Your task to perform on an android device: turn off smart reply in the gmail app Image 0: 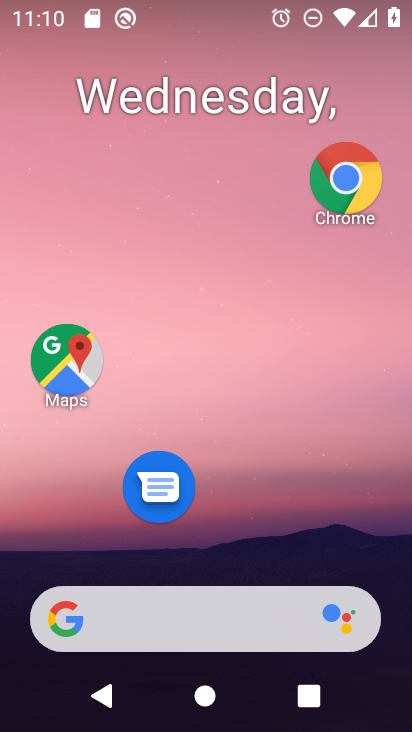
Step 0: drag from (243, 552) to (334, 133)
Your task to perform on an android device: turn off smart reply in the gmail app Image 1: 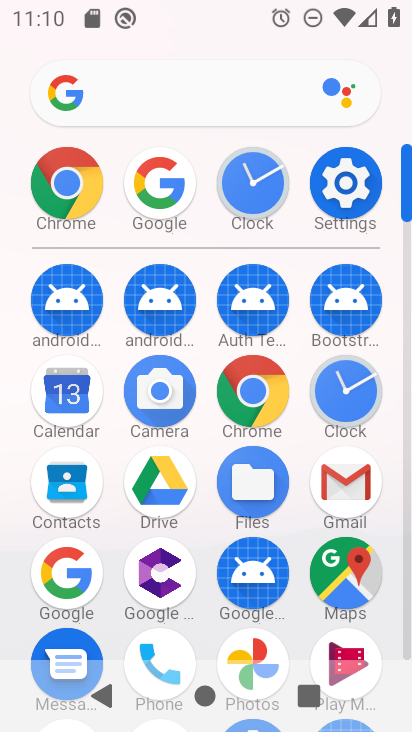
Step 1: click (345, 490)
Your task to perform on an android device: turn off smart reply in the gmail app Image 2: 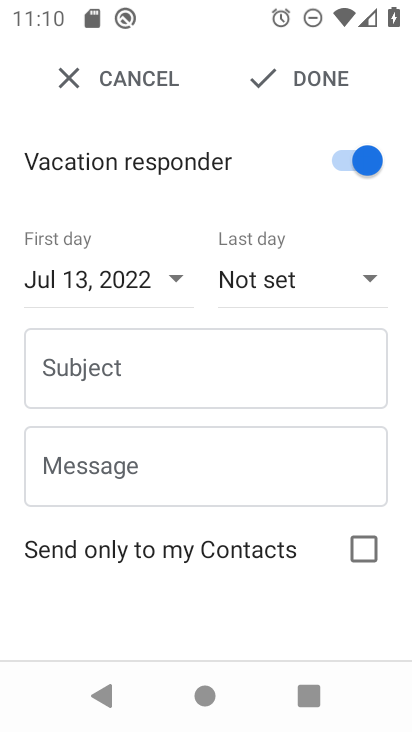
Step 2: click (82, 78)
Your task to perform on an android device: turn off smart reply in the gmail app Image 3: 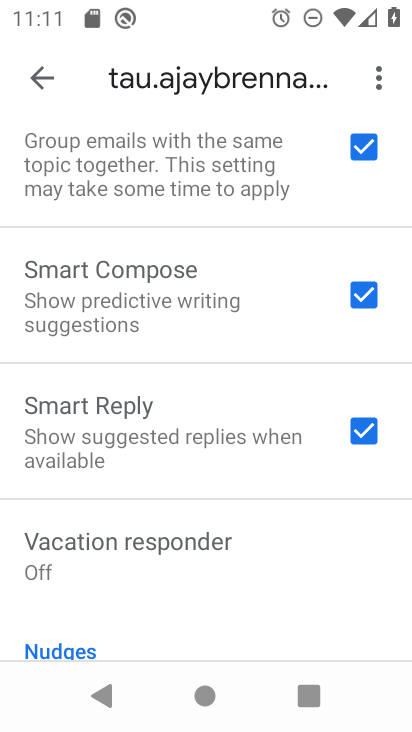
Step 3: click (192, 445)
Your task to perform on an android device: turn off smart reply in the gmail app Image 4: 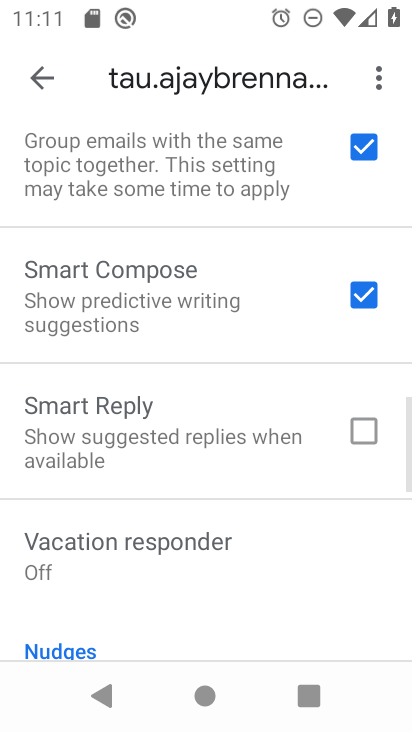
Step 4: task complete